Your task to perform on an android device: add a contact Image 0: 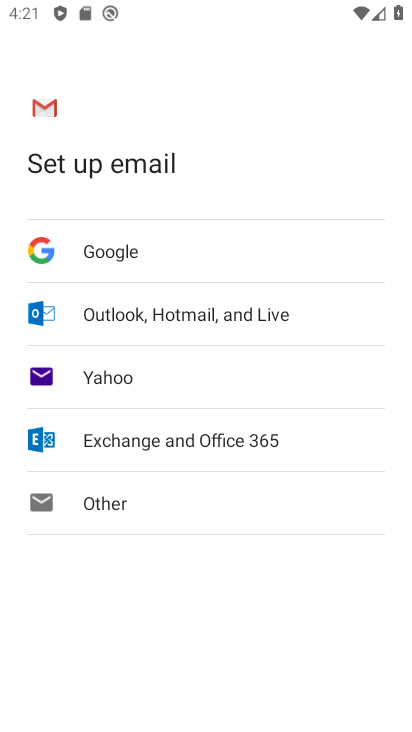
Step 0: press home button
Your task to perform on an android device: add a contact Image 1: 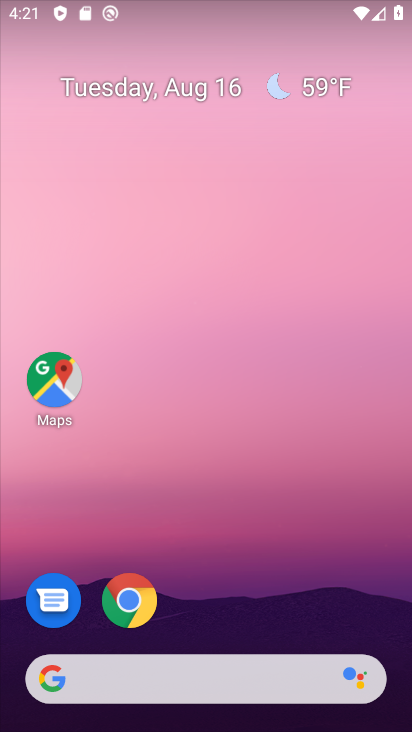
Step 1: drag from (206, 610) to (176, 2)
Your task to perform on an android device: add a contact Image 2: 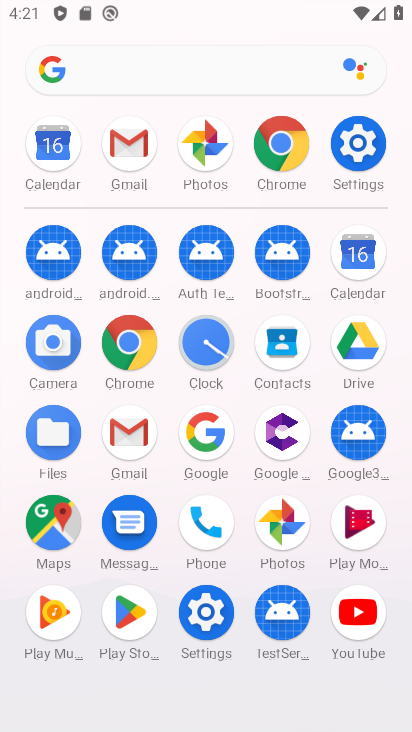
Step 2: click (285, 357)
Your task to perform on an android device: add a contact Image 3: 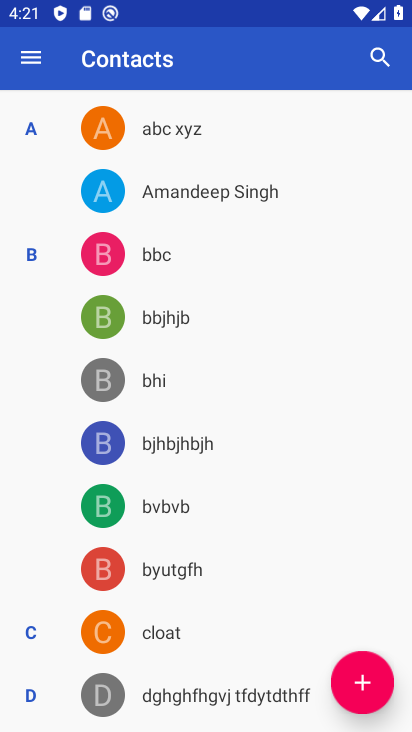
Step 3: click (355, 685)
Your task to perform on an android device: add a contact Image 4: 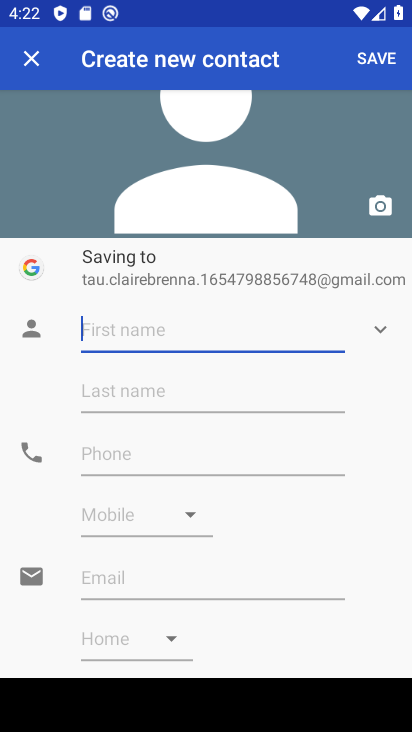
Step 4: type "sadia"
Your task to perform on an android device: add a contact Image 5: 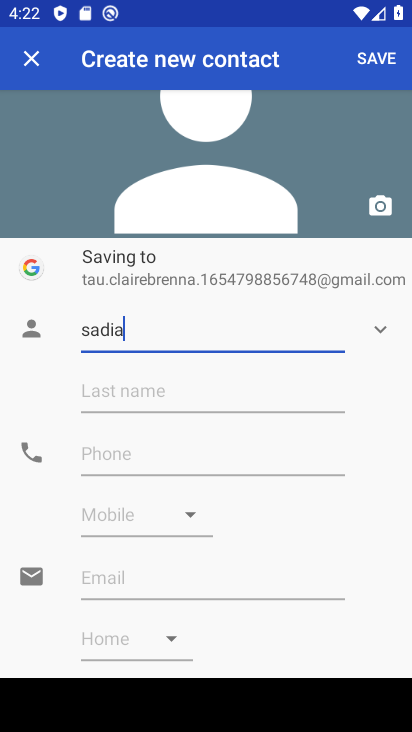
Step 5: click (373, 59)
Your task to perform on an android device: add a contact Image 6: 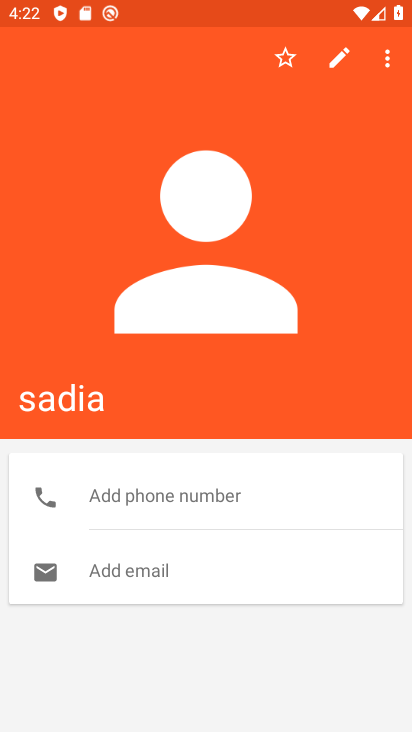
Step 6: task complete